Your task to perform on an android device: Open notification settings Image 0: 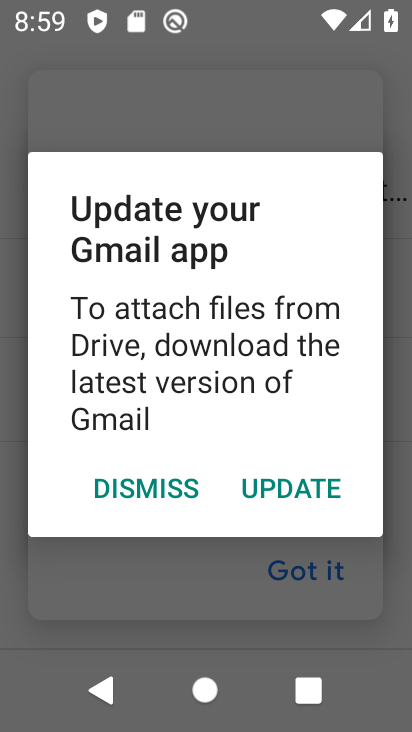
Step 0: press home button
Your task to perform on an android device: Open notification settings Image 1: 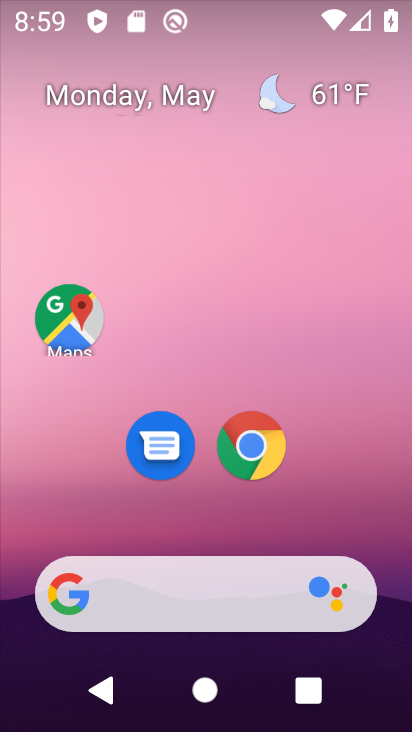
Step 1: drag from (378, 521) to (384, 266)
Your task to perform on an android device: Open notification settings Image 2: 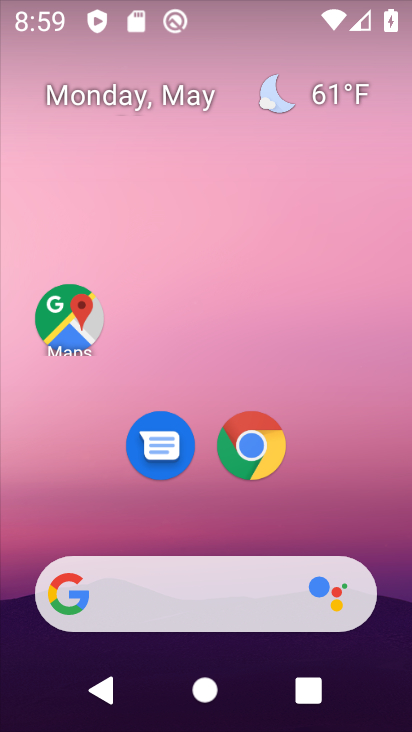
Step 2: drag from (367, 516) to (366, 104)
Your task to perform on an android device: Open notification settings Image 3: 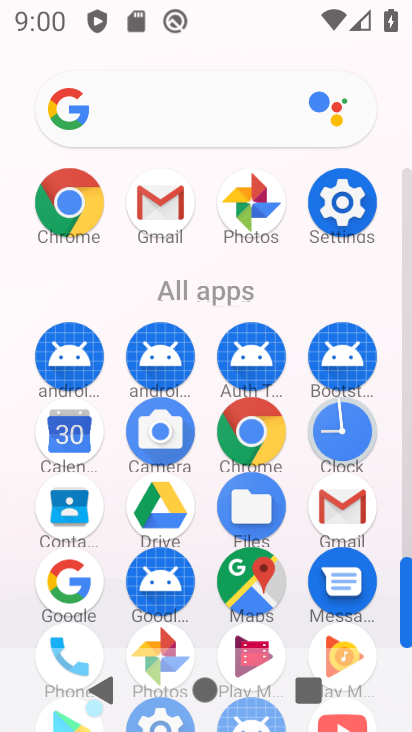
Step 3: click (337, 187)
Your task to perform on an android device: Open notification settings Image 4: 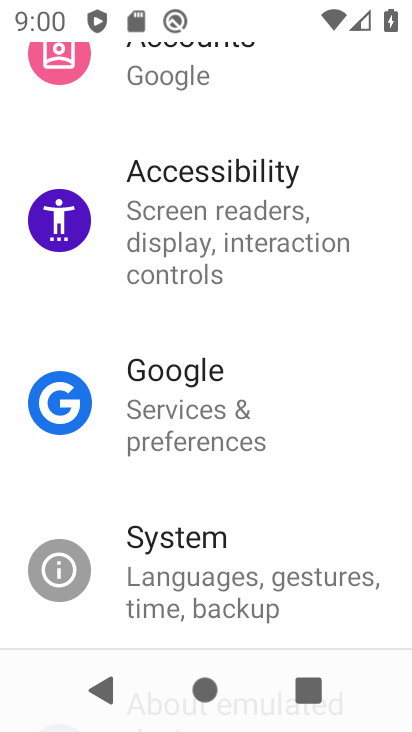
Step 4: drag from (370, 183) to (383, 412)
Your task to perform on an android device: Open notification settings Image 5: 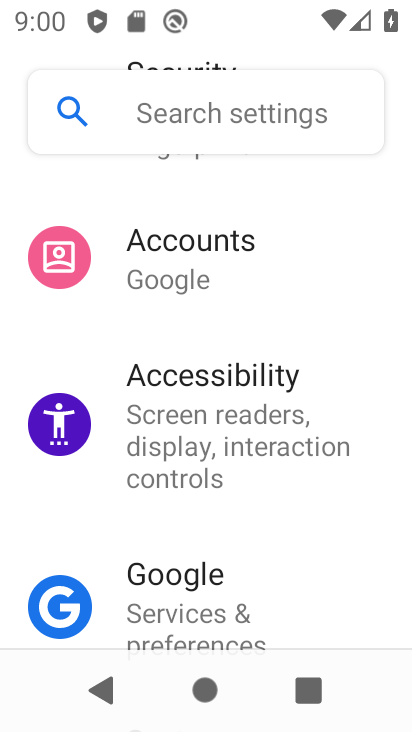
Step 5: drag from (331, 221) to (330, 363)
Your task to perform on an android device: Open notification settings Image 6: 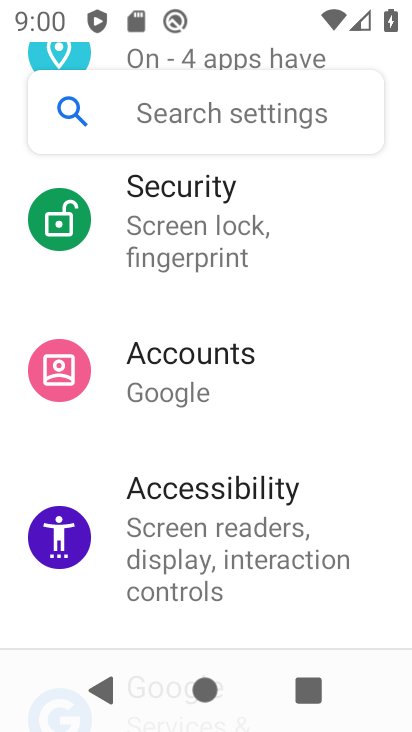
Step 6: drag from (356, 193) to (350, 327)
Your task to perform on an android device: Open notification settings Image 7: 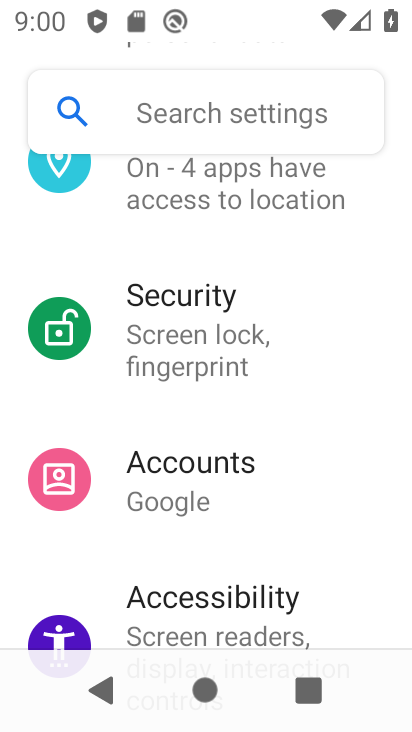
Step 7: drag from (369, 177) to (366, 326)
Your task to perform on an android device: Open notification settings Image 8: 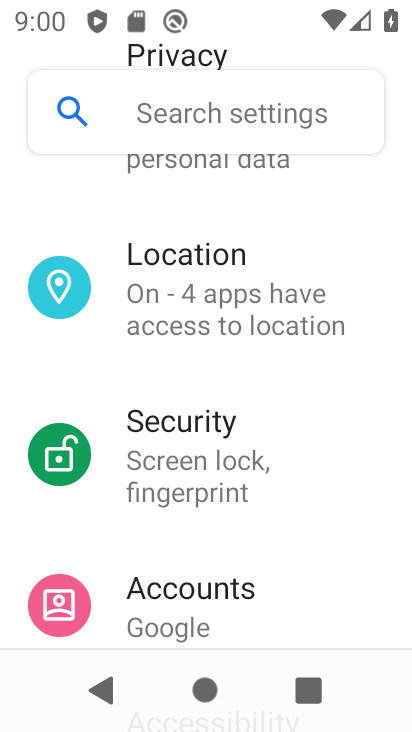
Step 8: drag from (366, 180) to (366, 328)
Your task to perform on an android device: Open notification settings Image 9: 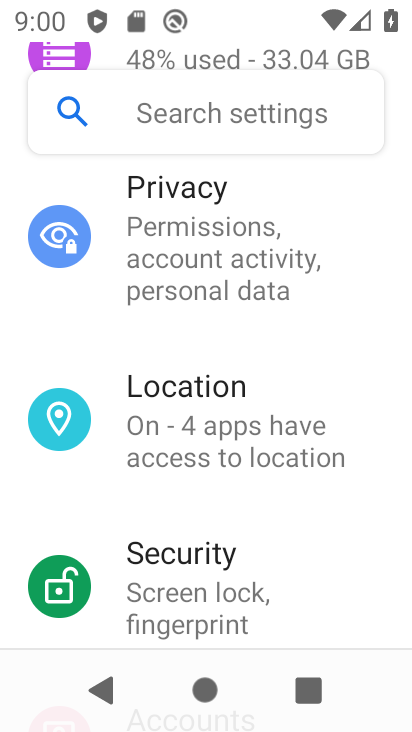
Step 9: drag from (365, 232) to (373, 356)
Your task to perform on an android device: Open notification settings Image 10: 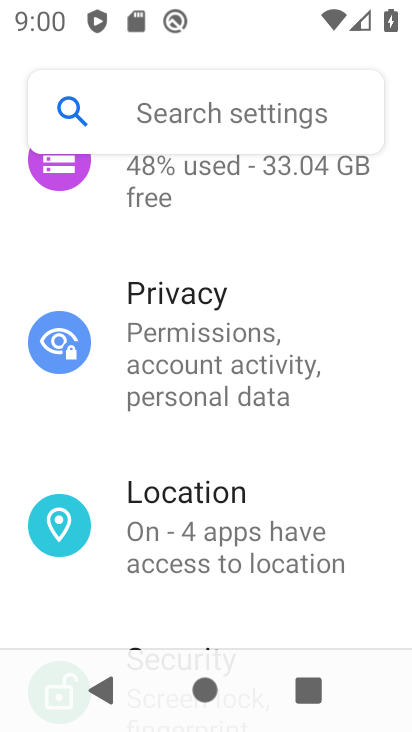
Step 10: drag from (381, 252) to (373, 372)
Your task to perform on an android device: Open notification settings Image 11: 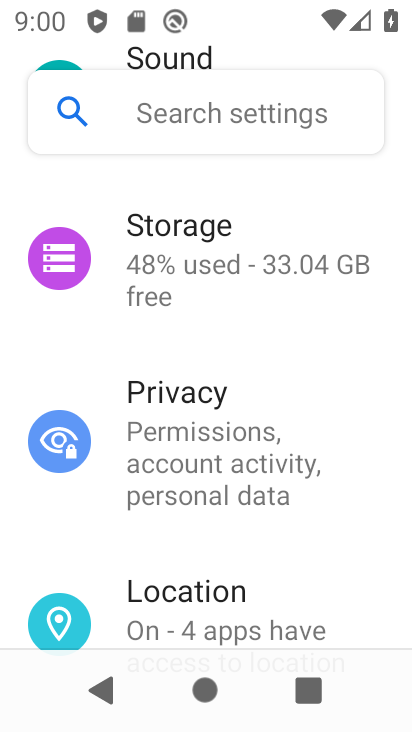
Step 11: drag from (359, 204) to (361, 347)
Your task to perform on an android device: Open notification settings Image 12: 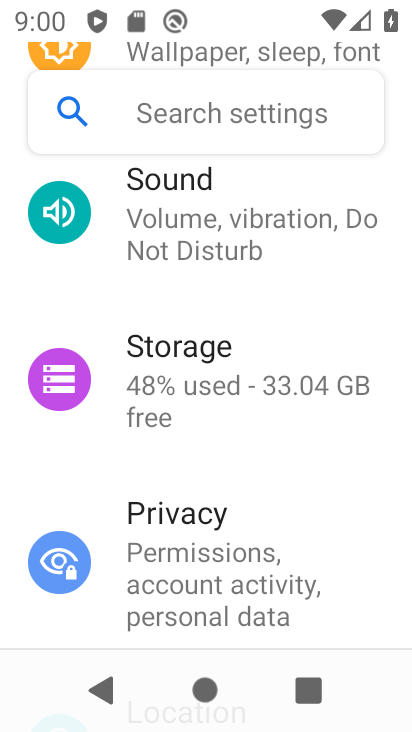
Step 12: drag from (369, 185) to (366, 324)
Your task to perform on an android device: Open notification settings Image 13: 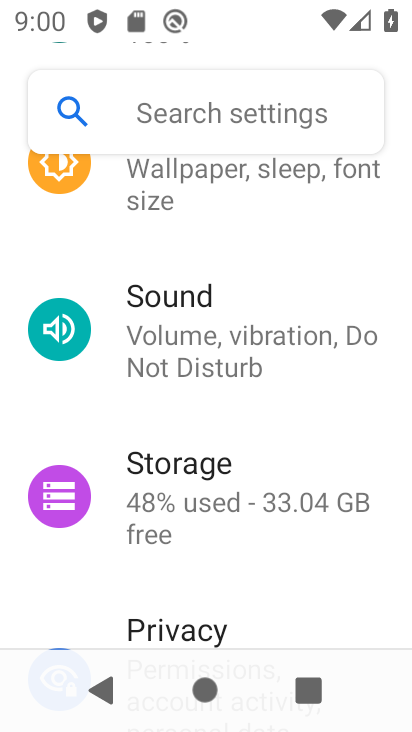
Step 13: drag from (392, 166) to (380, 313)
Your task to perform on an android device: Open notification settings Image 14: 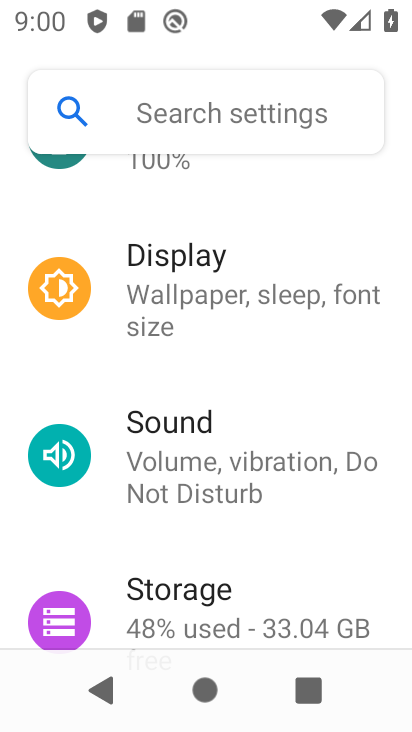
Step 14: drag from (368, 196) to (364, 327)
Your task to perform on an android device: Open notification settings Image 15: 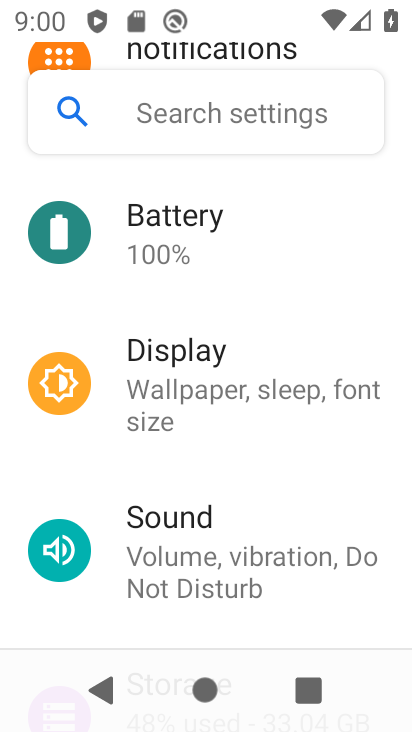
Step 15: drag from (355, 237) to (354, 364)
Your task to perform on an android device: Open notification settings Image 16: 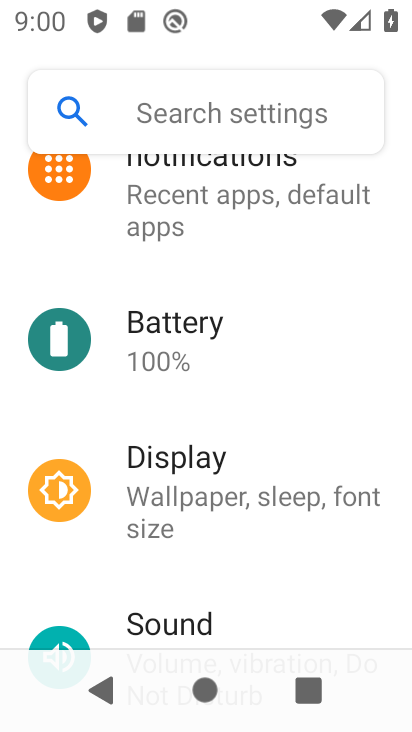
Step 16: drag from (371, 172) to (346, 342)
Your task to perform on an android device: Open notification settings Image 17: 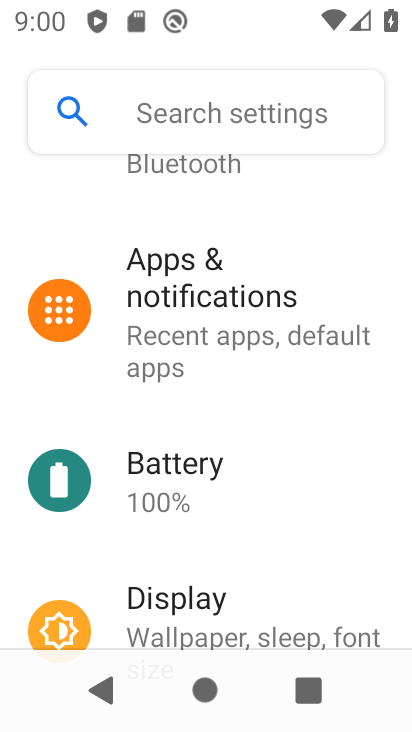
Step 17: click (270, 317)
Your task to perform on an android device: Open notification settings Image 18: 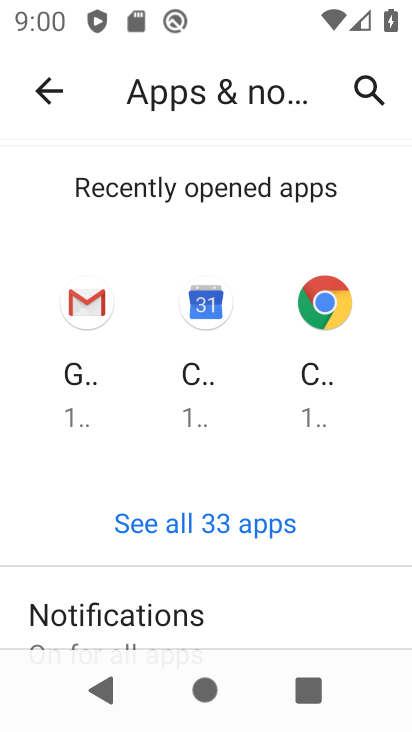
Step 18: drag from (370, 379) to (380, 250)
Your task to perform on an android device: Open notification settings Image 19: 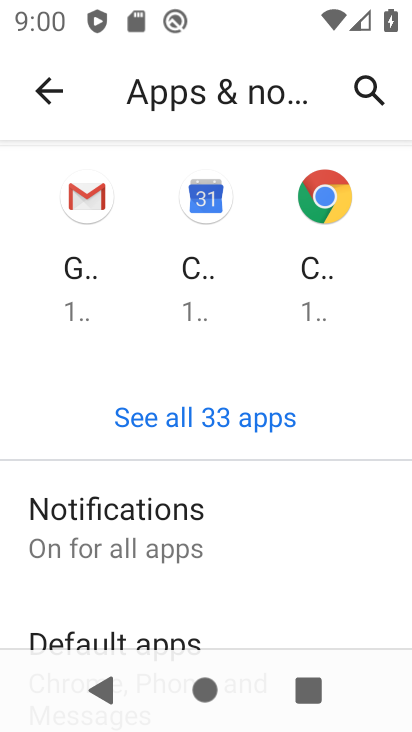
Step 19: drag from (372, 394) to (378, 258)
Your task to perform on an android device: Open notification settings Image 20: 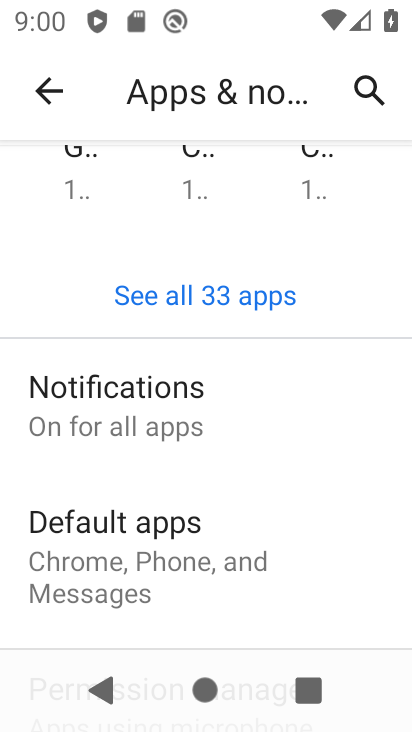
Step 20: drag from (359, 404) to (377, 285)
Your task to perform on an android device: Open notification settings Image 21: 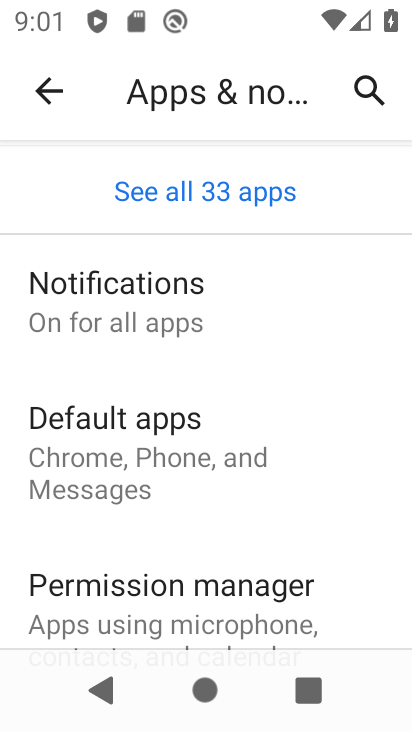
Step 21: click (278, 311)
Your task to perform on an android device: Open notification settings Image 22: 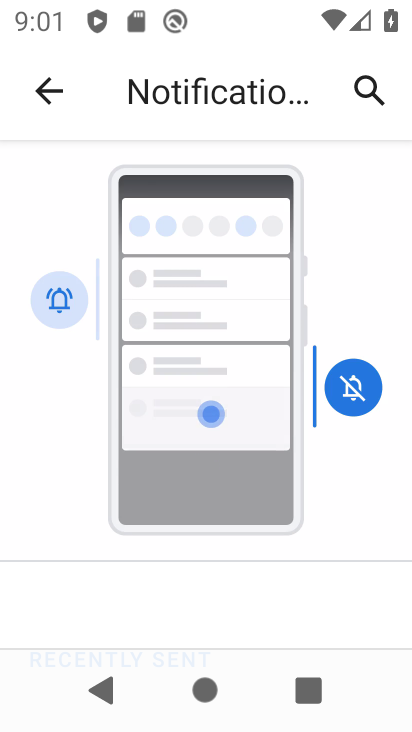
Step 22: task complete